Your task to perform on an android device: turn off smart reply in the gmail app Image 0: 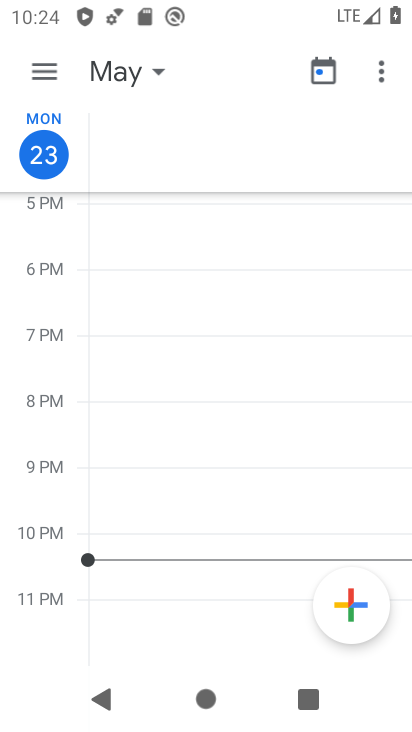
Step 0: press home button
Your task to perform on an android device: turn off smart reply in the gmail app Image 1: 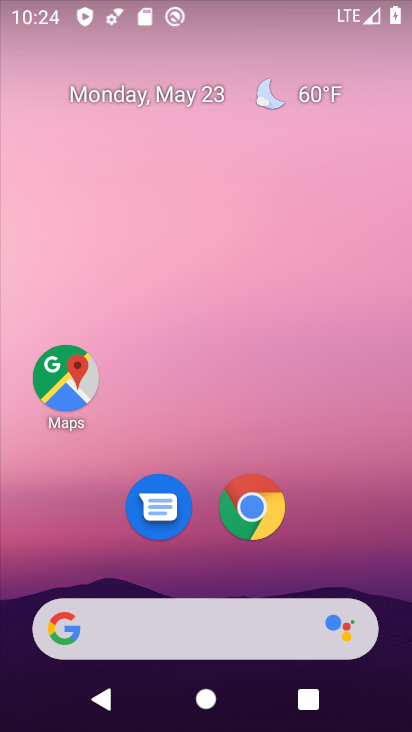
Step 1: drag from (321, 550) to (251, 193)
Your task to perform on an android device: turn off smart reply in the gmail app Image 2: 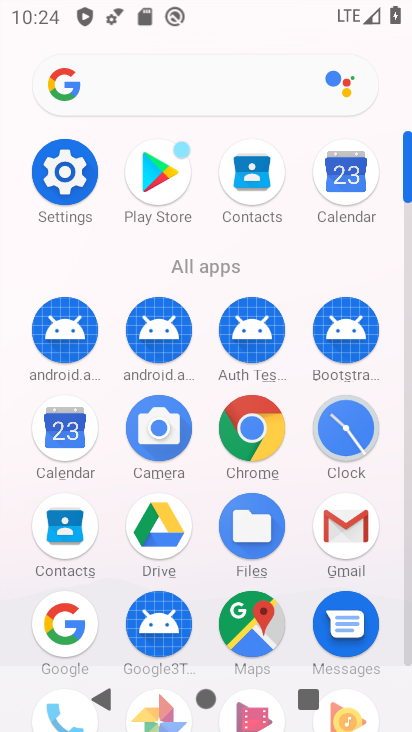
Step 2: click (344, 529)
Your task to perform on an android device: turn off smart reply in the gmail app Image 3: 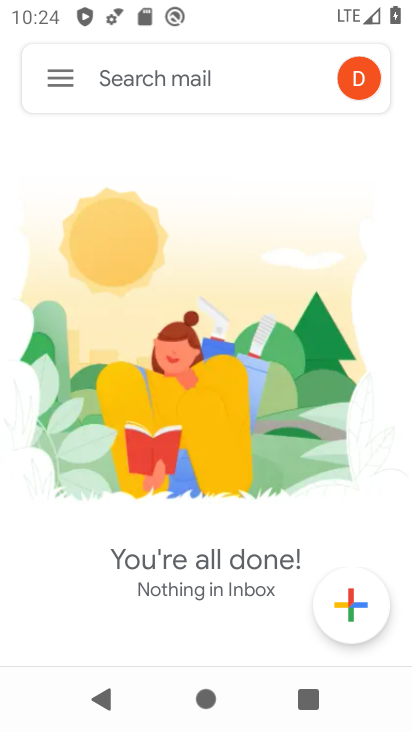
Step 3: click (60, 80)
Your task to perform on an android device: turn off smart reply in the gmail app Image 4: 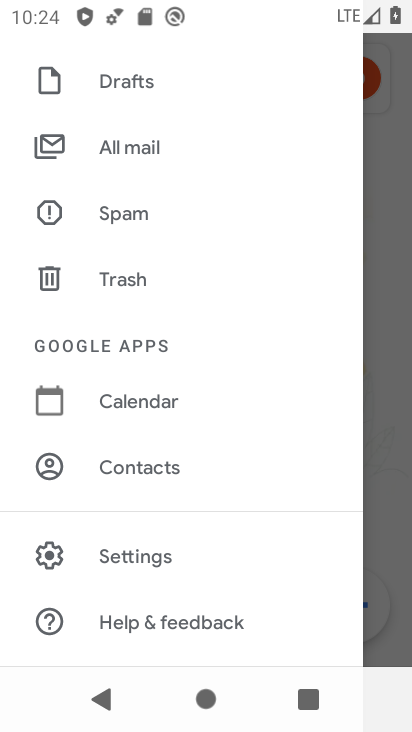
Step 4: click (126, 561)
Your task to perform on an android device: turn off smart reply in the gmail app Image 5: 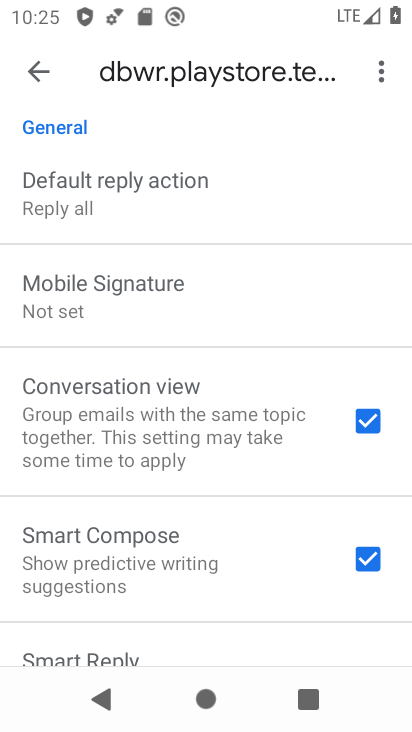
Step 5: drag from (116, 600) to (175, 465)
Your task to perform on an android device: turn off smart reply in the gmail app Image 6: 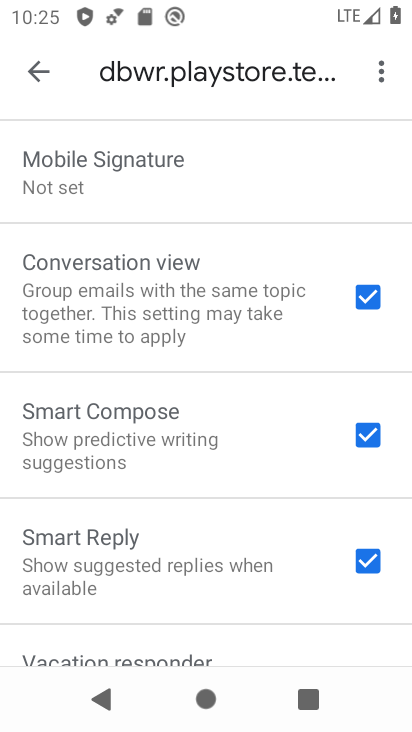
Step 6: click (370, 566)
Your task to perform on an android device: turn off smart reply in the gmail app Image 7: 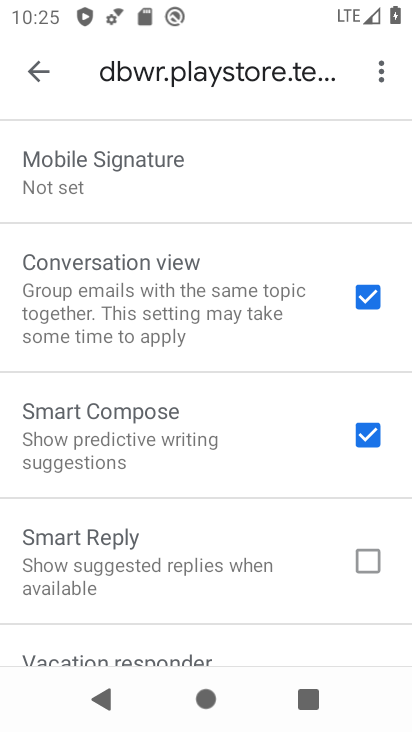
Step 7: task complete